Your task to perform on an android device: Open settings Image 0: 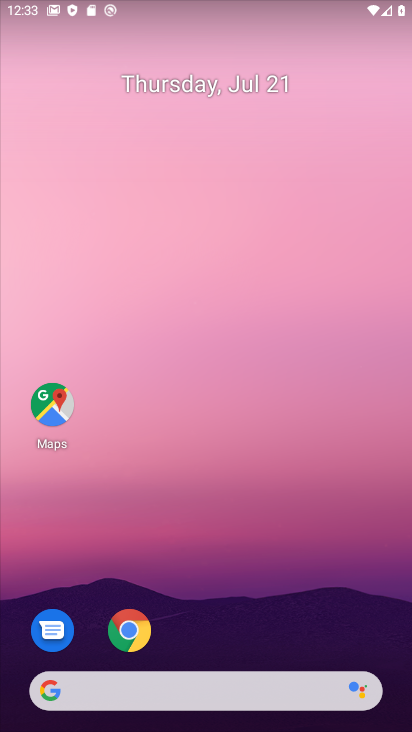
Step 0: drag from (319, 657) to (230, 180)
Your task to perform on an android device: Open settings Image 1: 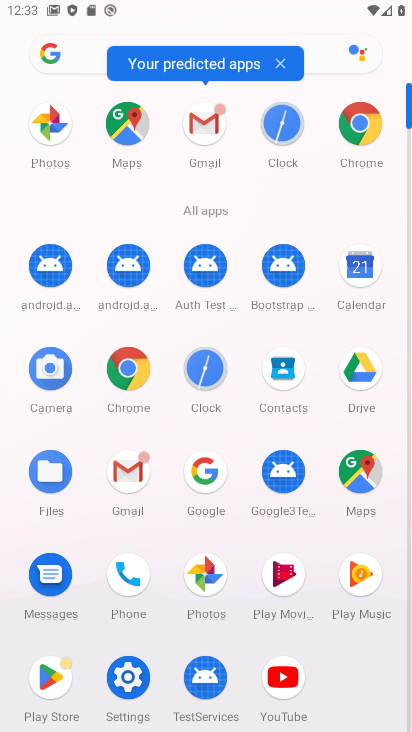
Step 1: click (125, 677)
Your task to perform on an android device: Open settings Image 2: 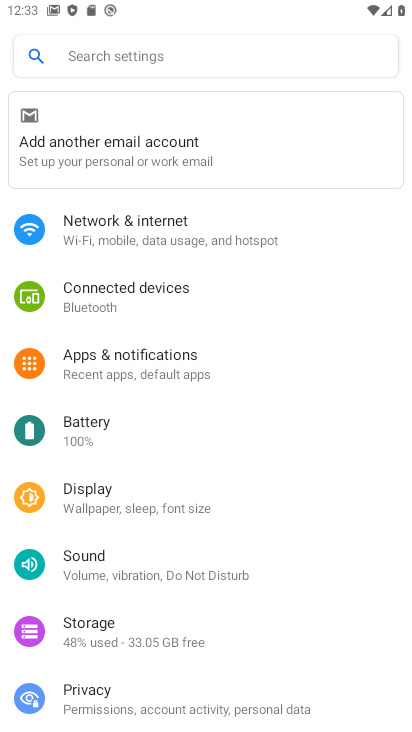
Step 2: task complete